Your task to perform on an android device: Go to Amazon Image 0: 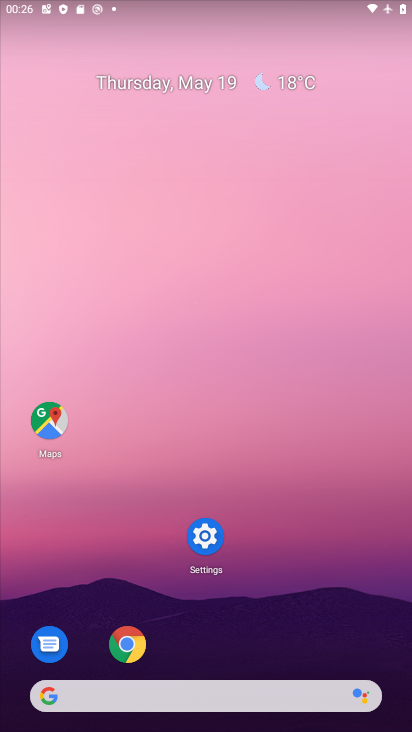
Step 0: drag from (343, 593) to (267, 188)
Your task to perform on an android device: Go to Amazon Image 1: 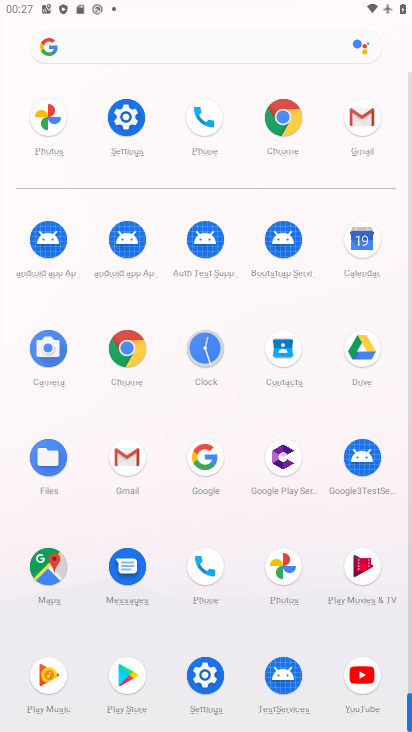
Step 1: click (281, 116)
Your task to perform on an android device: Go to Amazon Image 2: 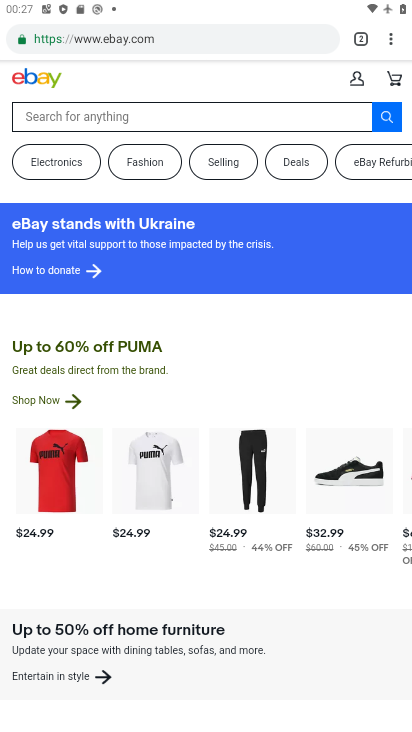
Step 2: click (210, 30)
Your task to perform on an android device: Go to Amazon Image 3: 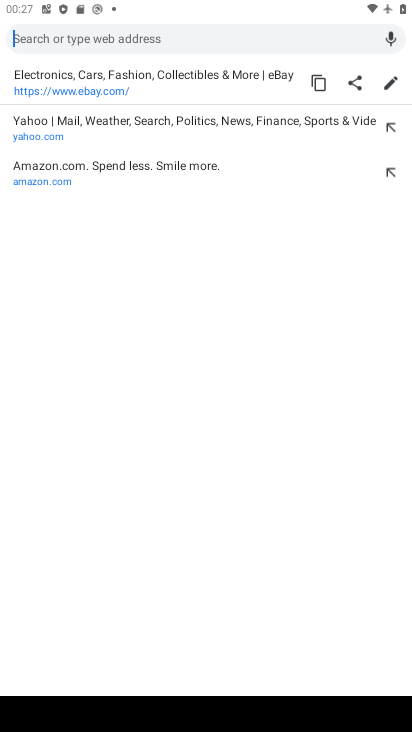
Step 3: click (57, 172)
Your task to perform on an android device: Go to Amazon Image 4: 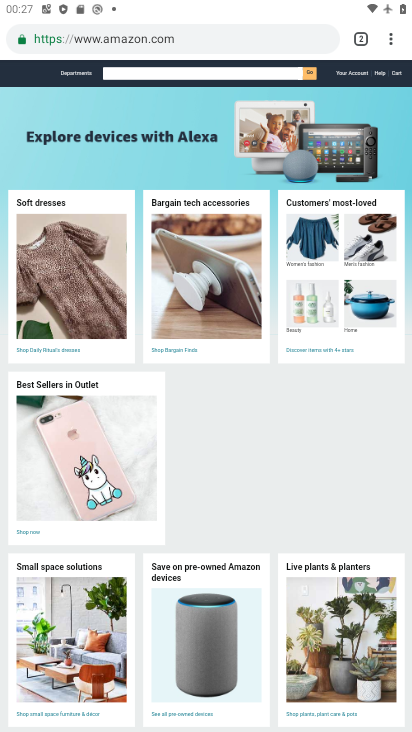
Step 4: task complete